Your task to perform on an android device: Search for "The Dispatcher" by John Scalzi on Goodreads Image 0: 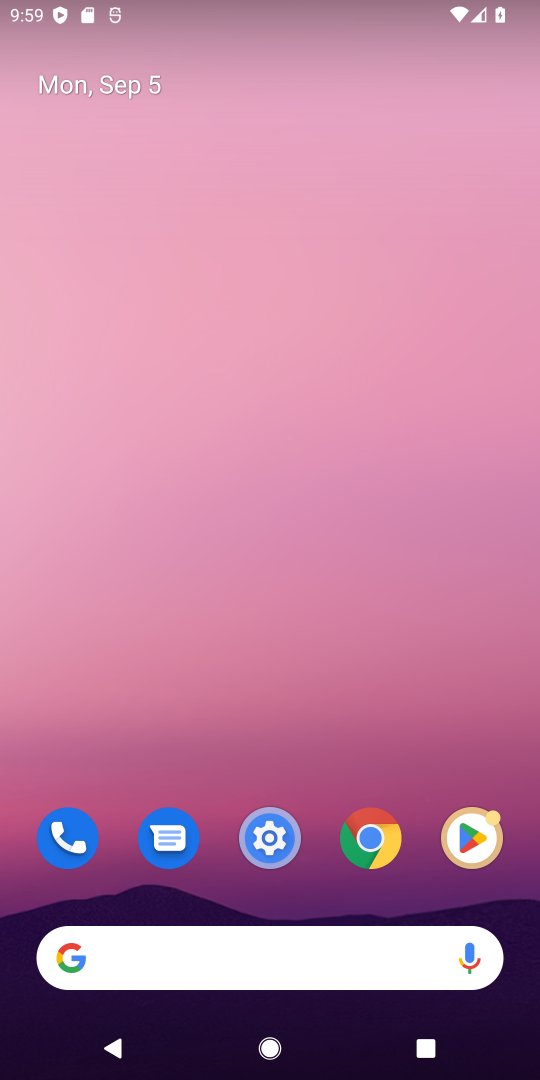
Step 0: click (312, 957)
Your task to perform on an android device: Search for "The Dispatcher" by John Scalzi on Goodreads Image 1: 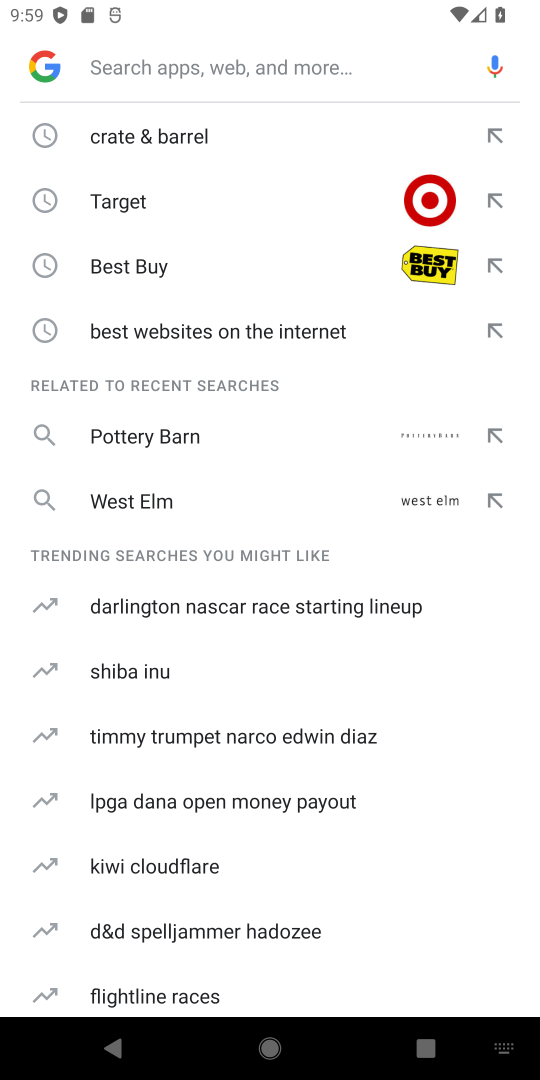
Step 1: type "Goodreads"
Your task to perform on an android device: Search for "The Dispatcher" by John Scalzi on Goodreads Image 2: 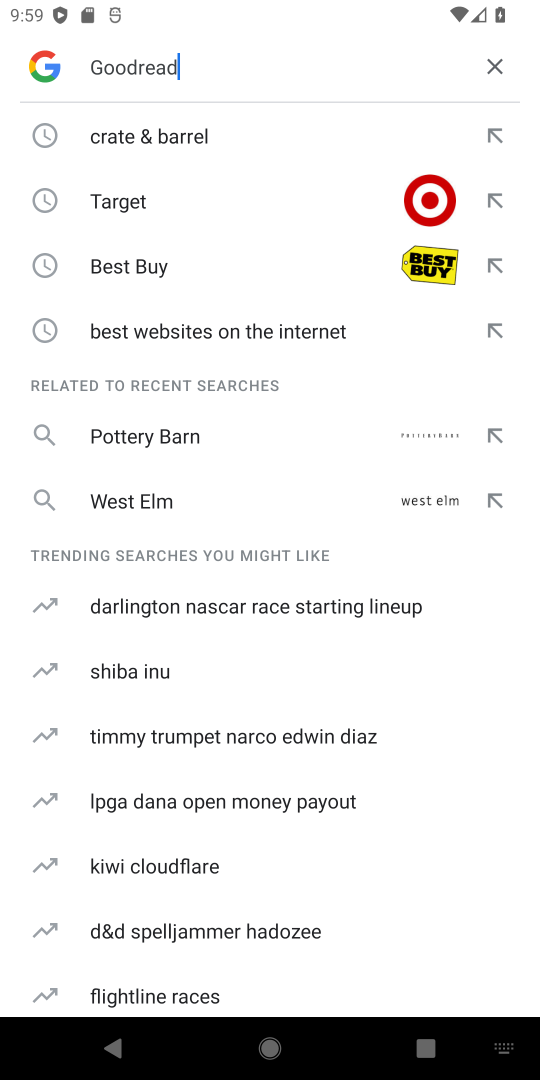
Step 2: type ""
Your task to perform on an android device: Search for "The Dispatcher" by John Scalzi on Goodreads Image 3: 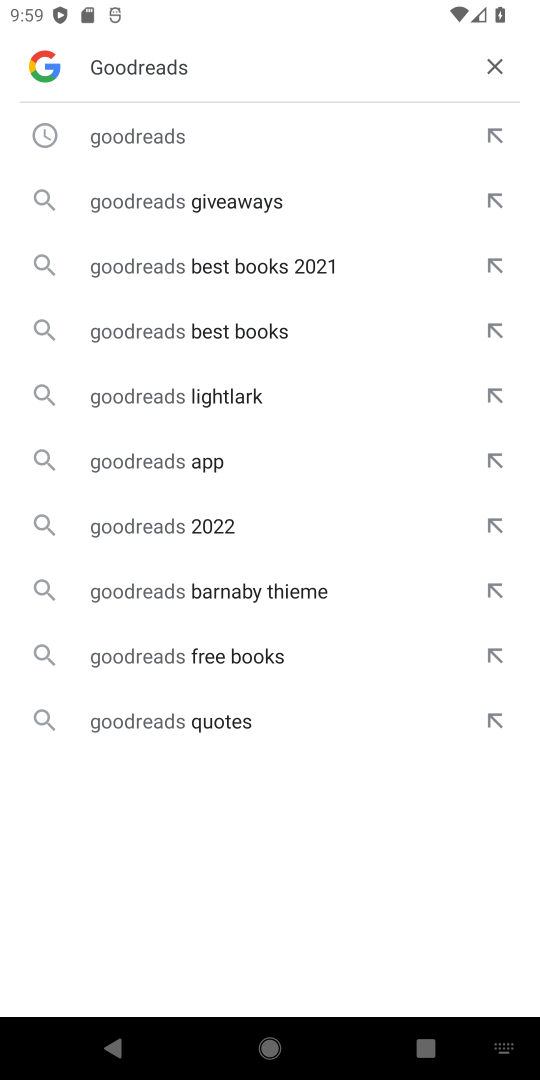
Step 3: click (153, 138)
Your task to perform on an android device: Search for "The Dispatcher" by John Scalzi on Goodreads Image 4: 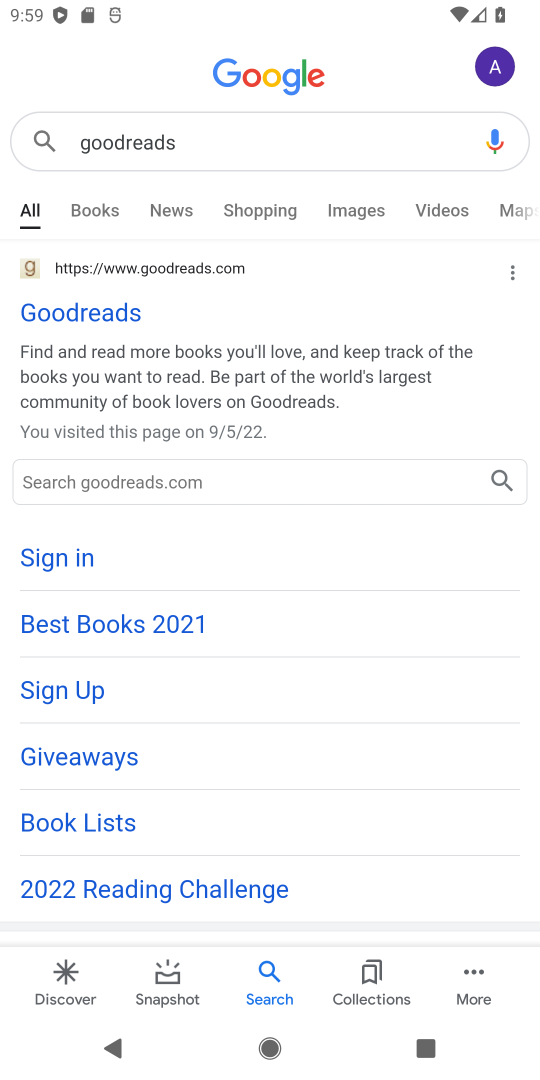
Step 4: click (125, 310)
Your task to perform on an android device: Search for "The Dispatcher" by John Scalzi on Goodreads Image 5: 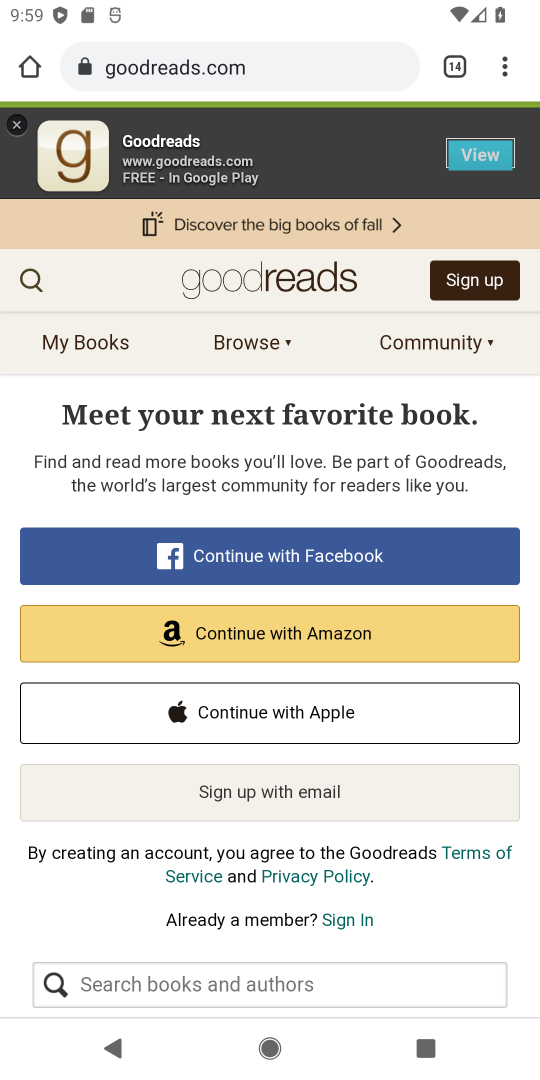
Step 5: click (33, 288)
Your task to perform on an android device: Search for "The Dispatcher" by John Scalzi on Goodreads Image 6: 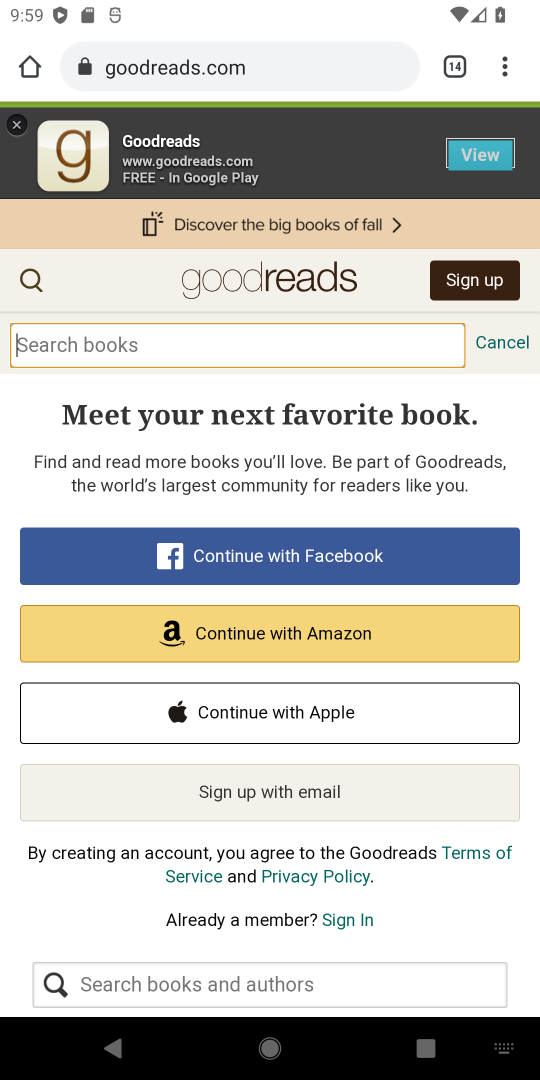
Step 6: click (113, 336)
Your task to perform on an android device: Search for "The Dispatcher" by John Scalzi on Goodreads Image 7: 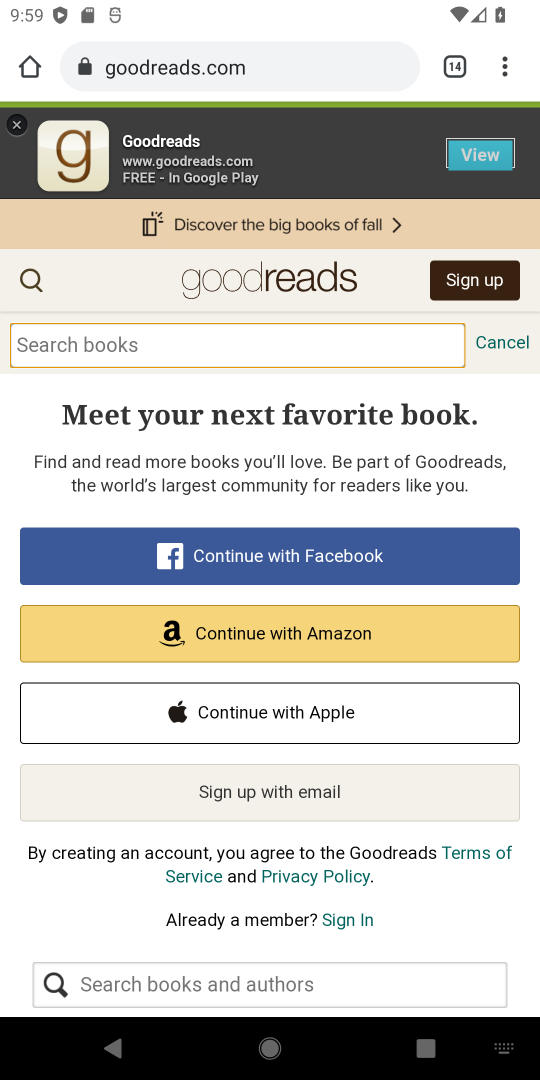
Step 7: type "The Dispatcher"
Your task to perform on an android device: Search for "The Dispatcher" by John Scalzi on Goodreads Image 8: 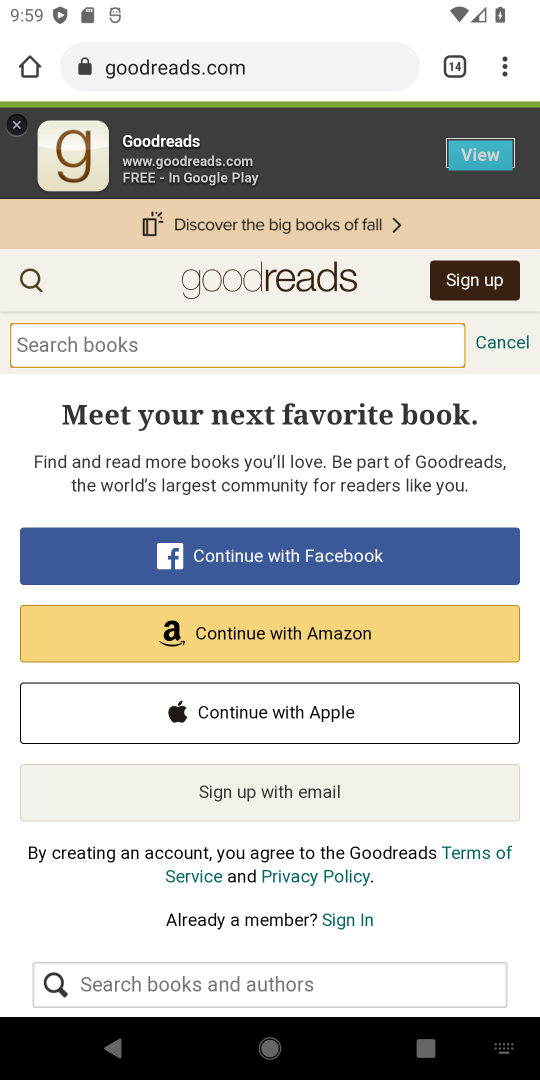
Step 8: type ""
Your task to perform on an android device: Search for "The Dispatcher" by John Scalzi on Goodreads Image 9: 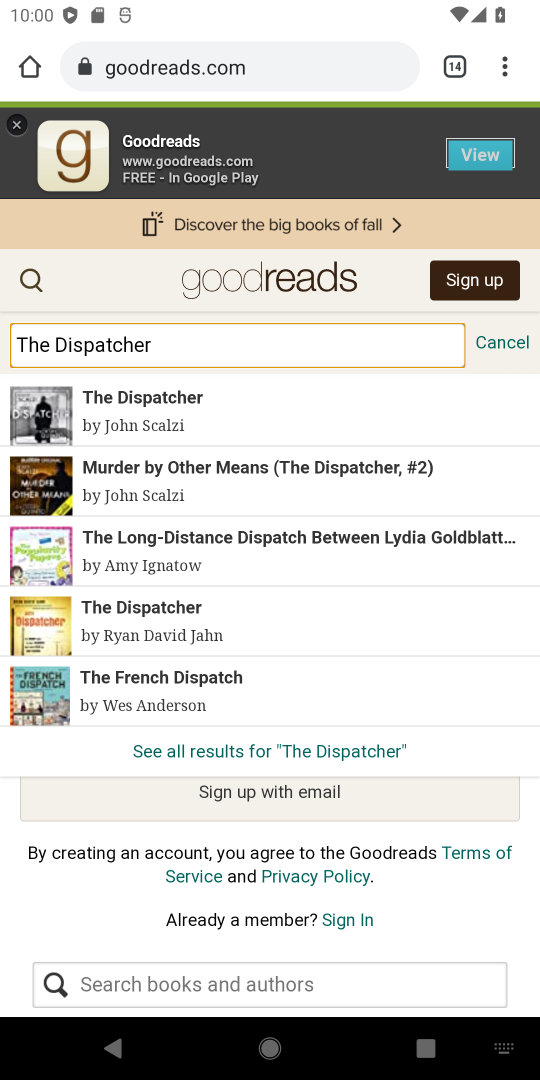
Step 9: click (120, 396)
Your task to perform on an android device: Search for "The Dispatcher" by John Scalzi on Goodreads Image 10: 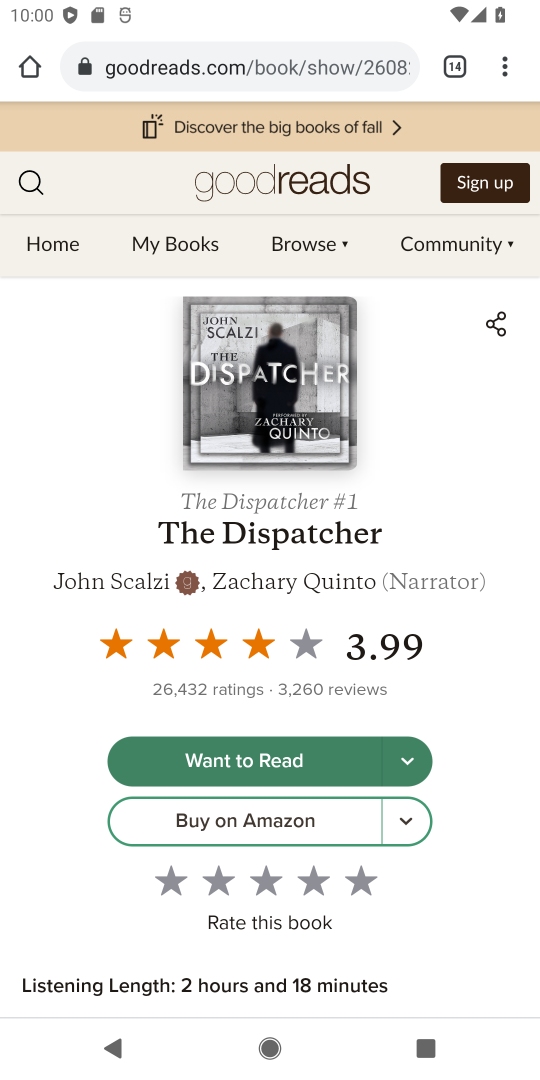
Step 10: task complete